Your task to perform on an android device: toggle javascript in the chrome app Image 0: 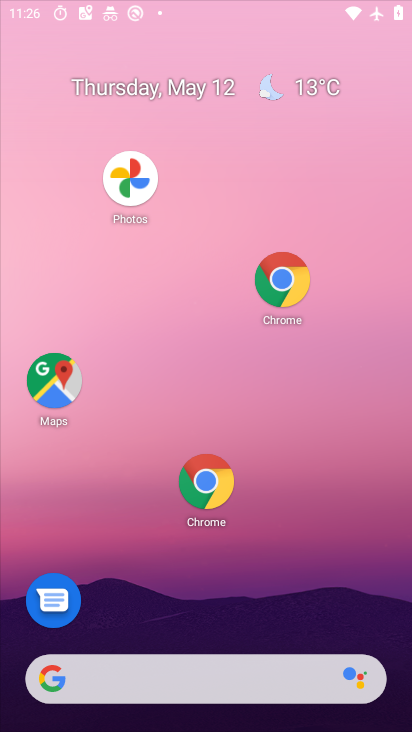
Step 0: drag from (283, 644) to (136, 258)
Your task to perform on an android device: toggle javascript in the chrome app Image 1: 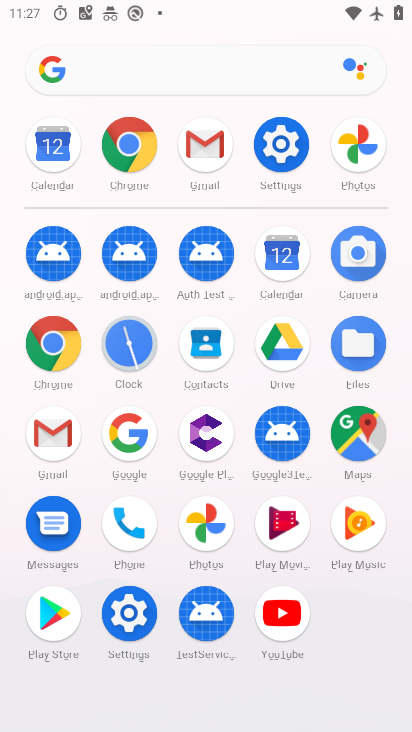
Step 1: click (119, 146)
Your task to perform on an android device: toggle javascript in the chrome app Image 2: 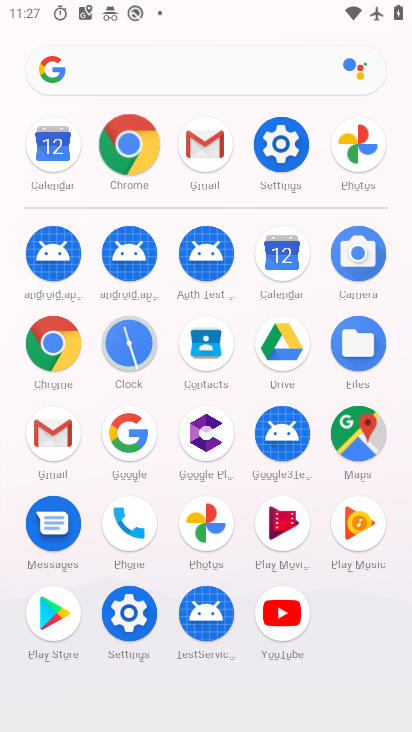
Step 2: click (119, 146)
Your task to perform on an android device: toggle javascript in the chrome app Image 3: 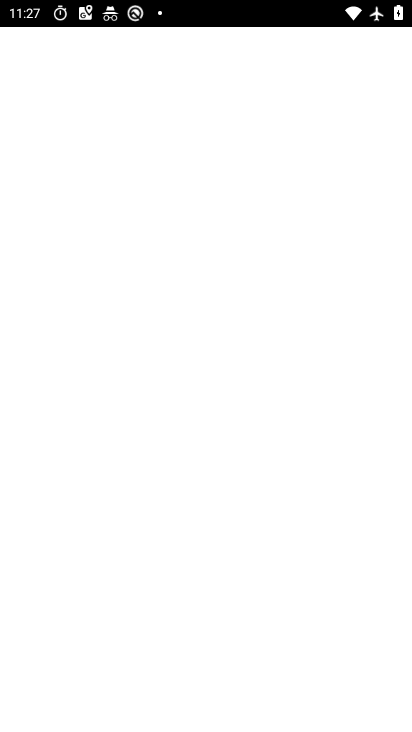
Step 3: click (120, 146)
Your task to perform on an android device: toggle javascript in the chrome app Image 4: 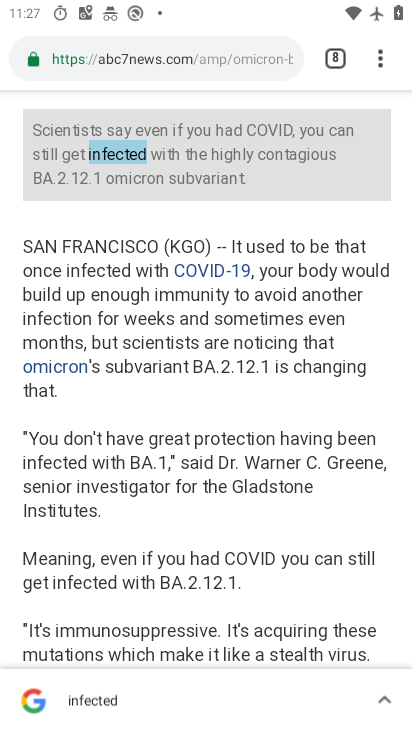
Step 4: click (117, 154)
Your task to perform on an android device: toggle javascript in the chrome app Image 5: 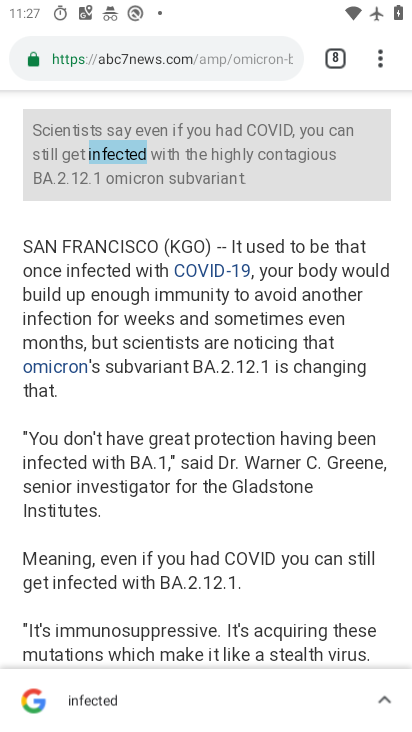
Step 5: click (118, 159)
Your task to perform on an android device: toggle javascript in the chrome app Image 6: 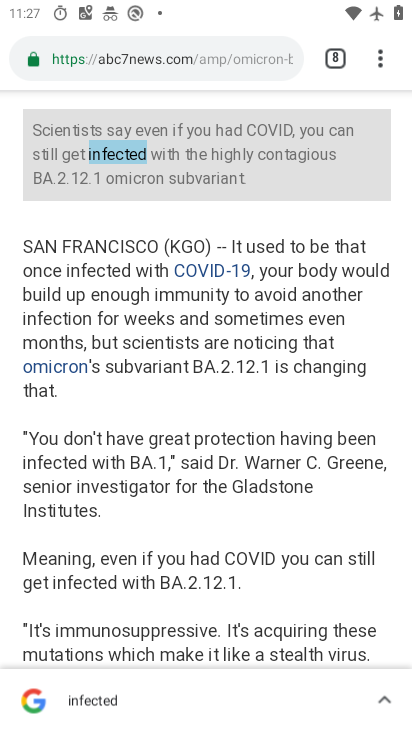
Step 6: click (118, 159)
Your task to perform on an android device: toggle javascript in the chrome app Image 7: 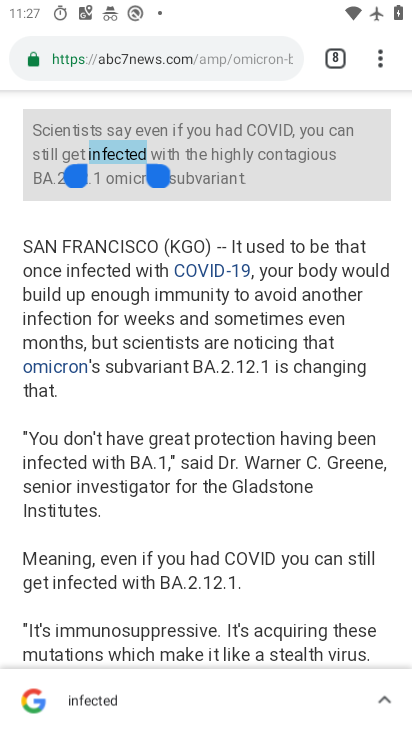
Step 7: click (118, 159)
Your task to perform on an android device: toggle javascript in the chrome app Image 8: 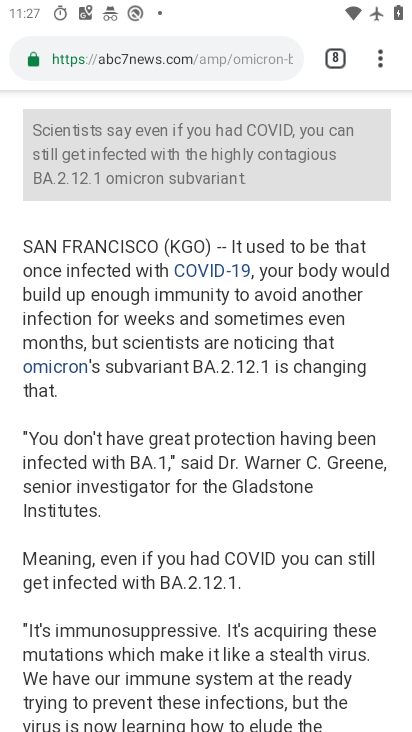
Step 8: click (118, 159)
Your task to perform on an android device: toggle javascript in the chrome app Image 9: 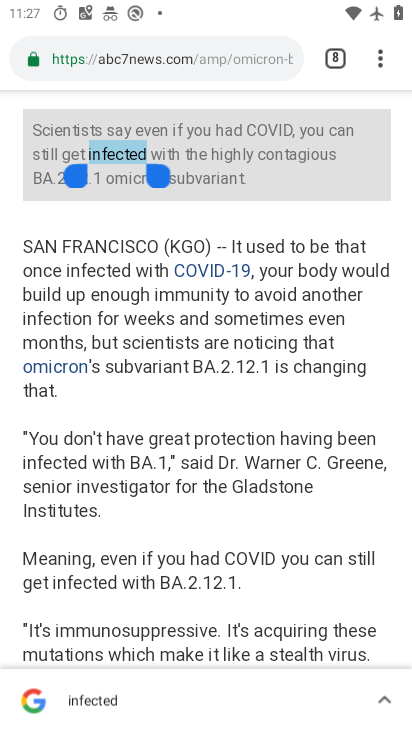
Step 9: press back button
Your task to perform on an android device: toggle javascript in the chrome app Image 10: 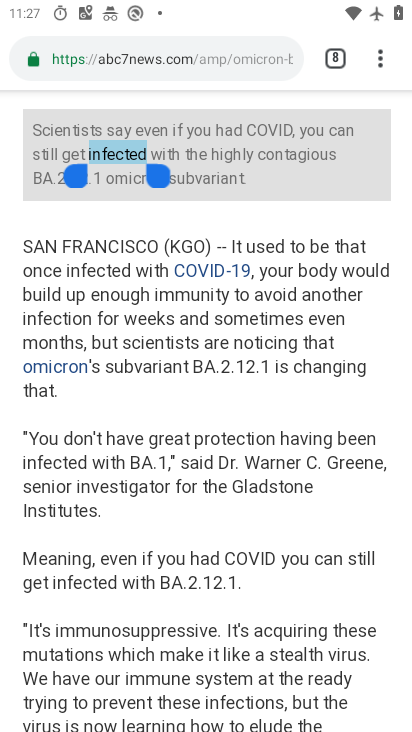
Step 10: press back button
Your task to perform on an android device: toggle javascript in the chrome app Image 11: 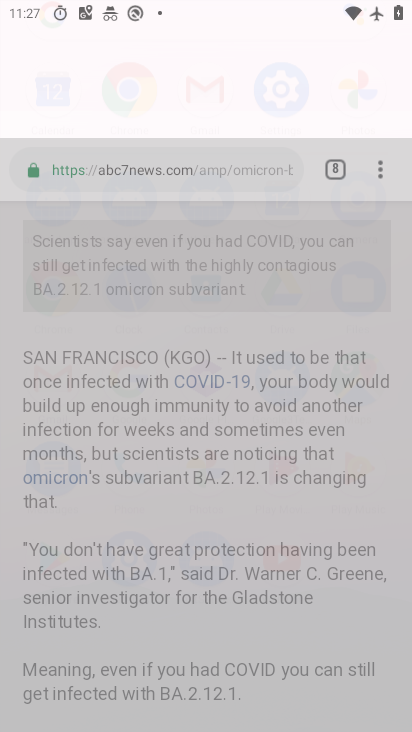
Step 11: press back button
Your task to perform on an android device: toggle javascript in the chrome app Image 12: 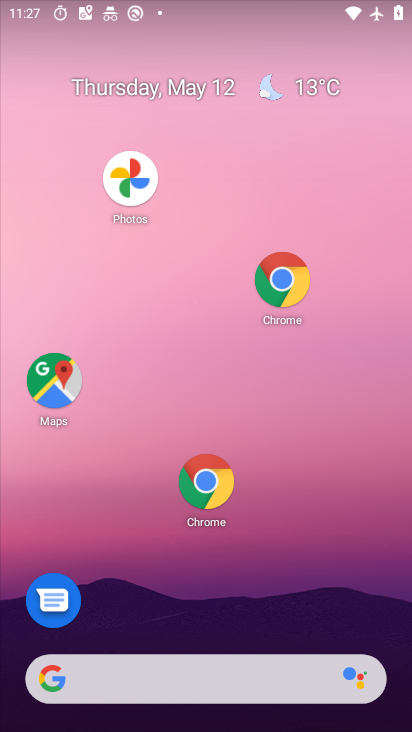
Step 12: drag from (306, 510) to (181, 191)
Your task to perform on an android device: toggle javascript in the chrome app Image 13: 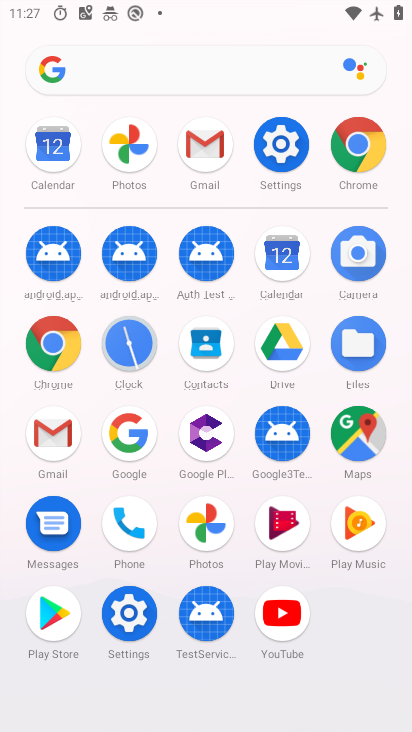
Step 13: click (370, 123)
Your task to perform on an android device: toggle javascript in the chrome app Image 14: 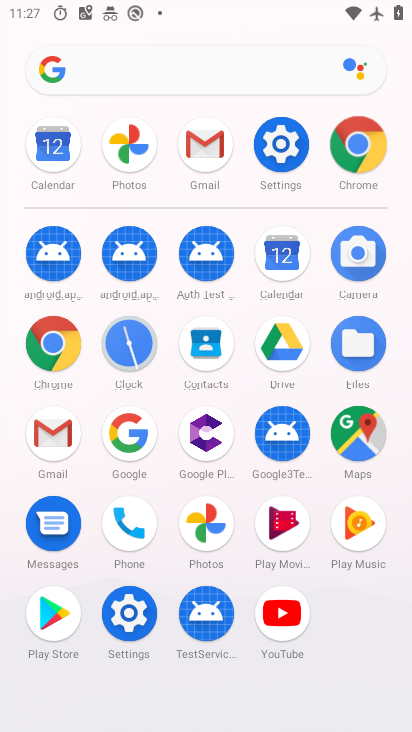
Step 14: click (366, 134)
Your task to perform on an android device: toggle javascript in the chrome app Image 15: 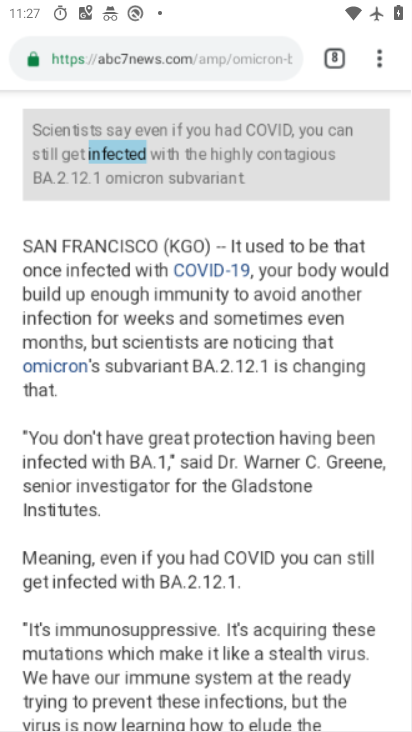
Step 15: click (360, 137)
Your task to perform on an android device: toggle javascript in the chrome app Image 16: 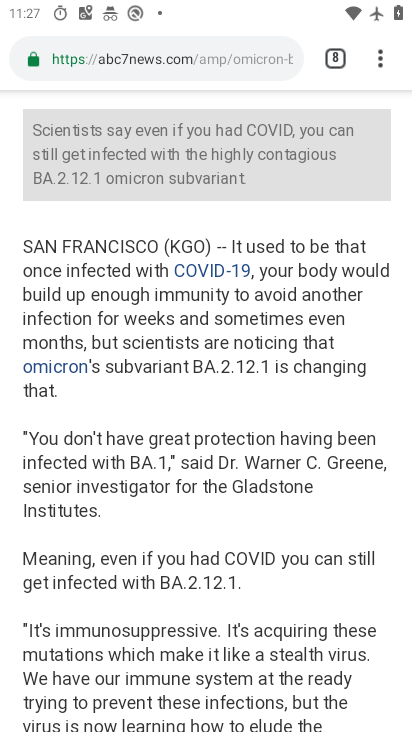
Step 16: drag from (171, 269) to (196, 576)
Your task to perform on an android device: toggle javascript in the chrome app Image 17: 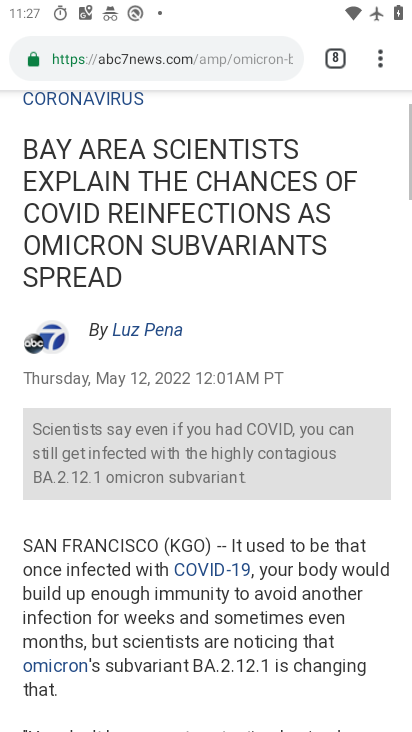
Step 17: drag from (75, 141) to (113, 415)
Your task to perform on an android device: toggle javascript in the chrome app Image 18: 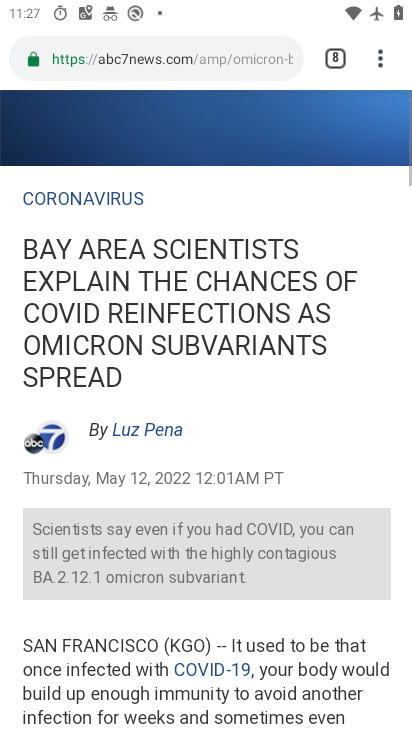
Step 18: drag from (66, 158) to (132, 484)
Your task to perform on an android device: toggle javascript in the chrome app Image 19: 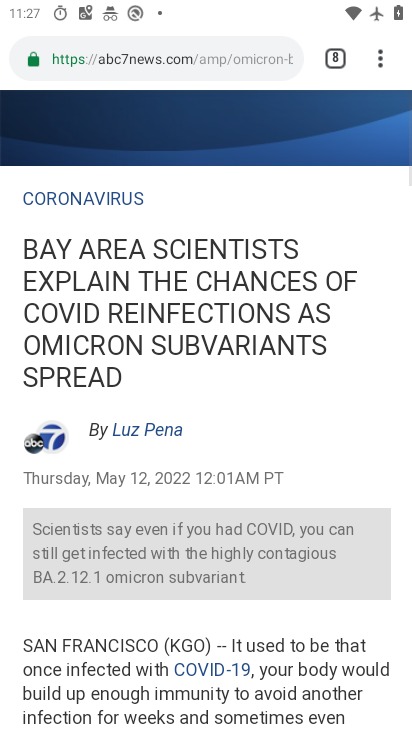
Step 19: drag from (106, 152) to (164, 654)
Your task to perform on an android device: toggle javascript in the chrome app Image 20: 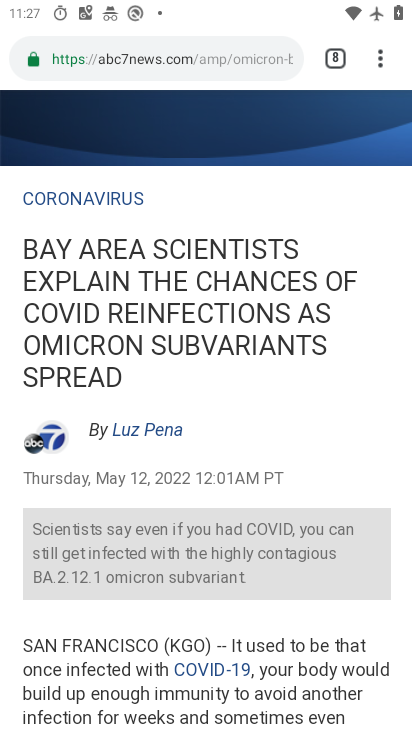
Step 20: drag from (119, 282) to (158, 541)
Your task to perform on an android device: toggle javascript in the chrome app Image 21: 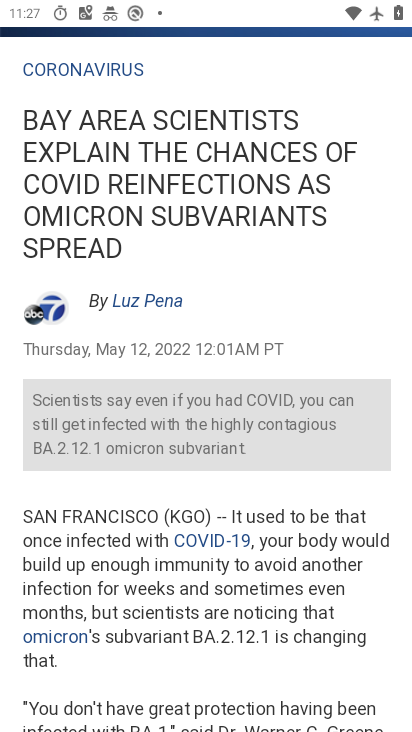
Step 21: drag from (186, 147) to (198, 612)
Your task to perform on an android device: toggle javascript in the chrome app Image 22: 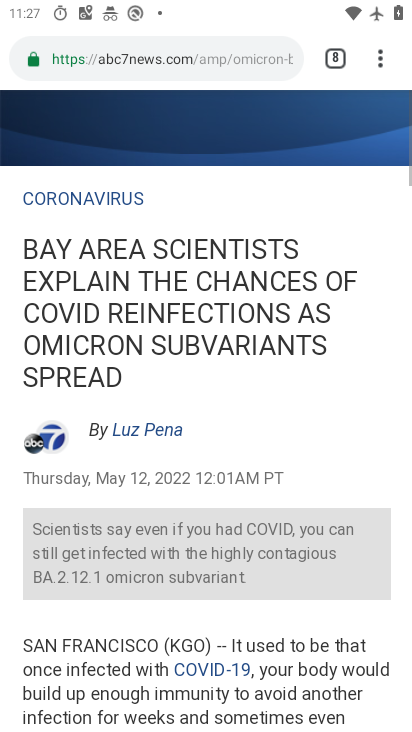
Step 22: drag from (197, 161) to (221, 637)
Your task to perform on an android device: toggle javascript in the chrome app Image 23: 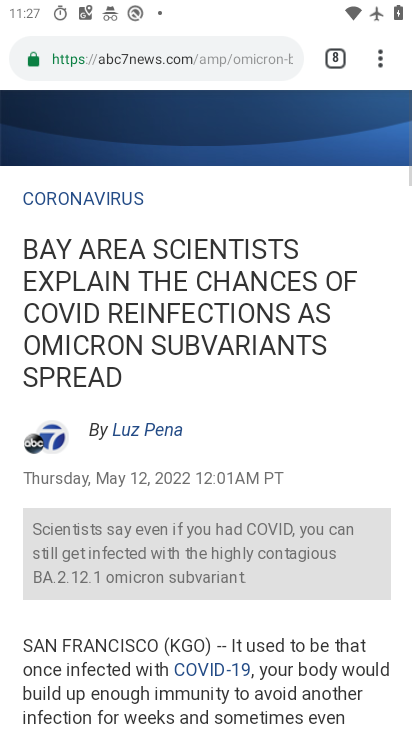
Step 23: drag from (174, 215) to (218, 583)
Your task to perform on an android device: toggle javascript in the chrome app Image 24: 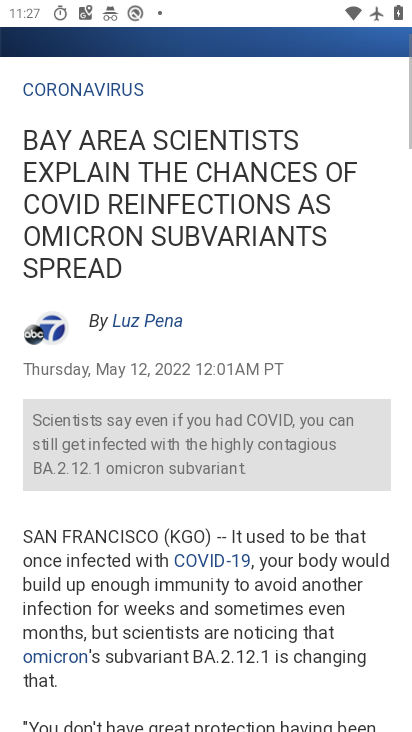
Step 24: drag from (206, 88) to (216, 451)
Your task to perform on an android device: toggle javascript in the chrome app Image 25: 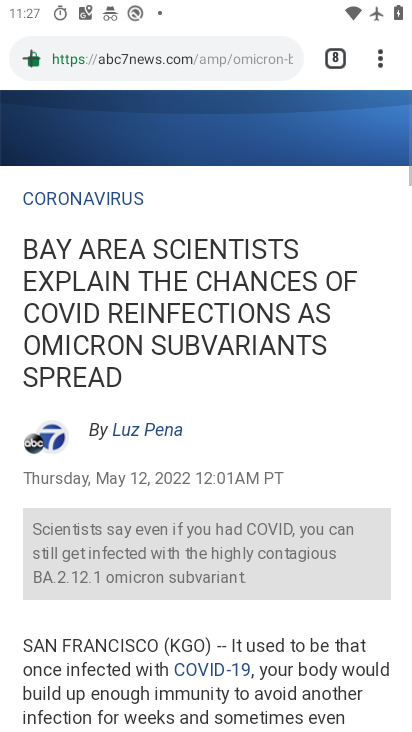
Step 25: drag from (190, 352) to (182, 526)
Your task to perform on an android device: toggle javascript in the chrome app Image 26: 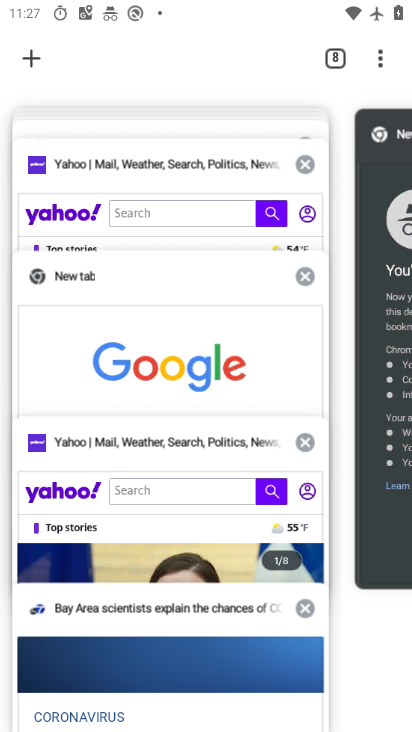
Step 26: drag from (105, 251) to (156, 502)
Your task to perform on an android device: toggle javascript in the chrome app Image 27: 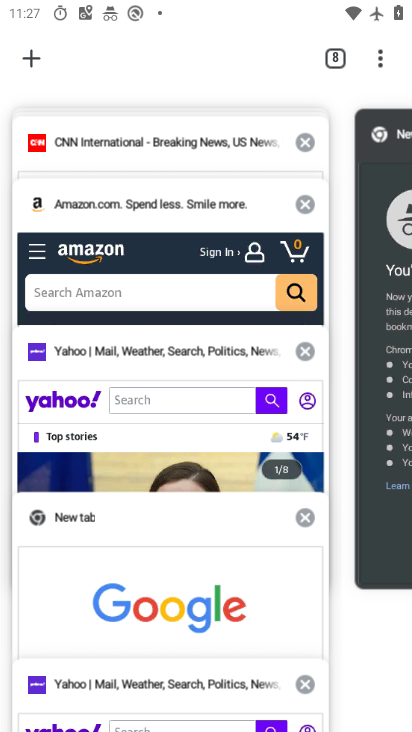
Step 27: drag from (379, 54) to (154, 223)
Your task to perform on an android device: toggle javascript in the chrome app Image 28: 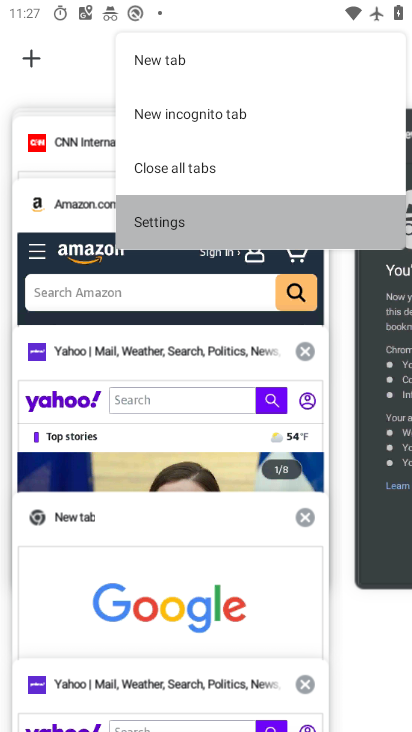
Step 28: click (155, 221)
Your task to perform on an android device: toggle javascript in the chrome app Image 29: 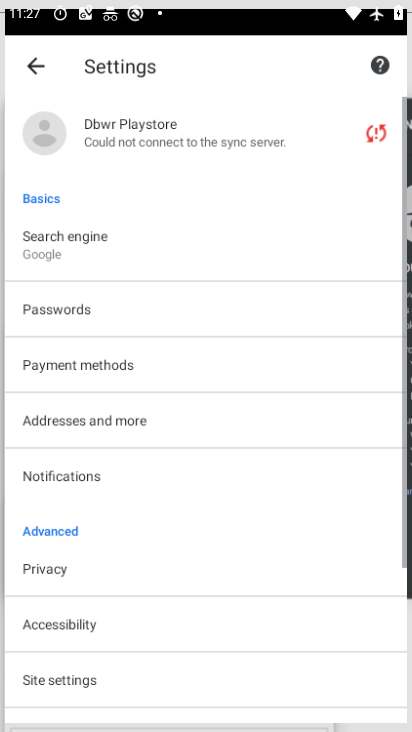
Step 29: click (155, 221)
Your task to perform on an android device: toggle javascript in the chrome app Image 30: 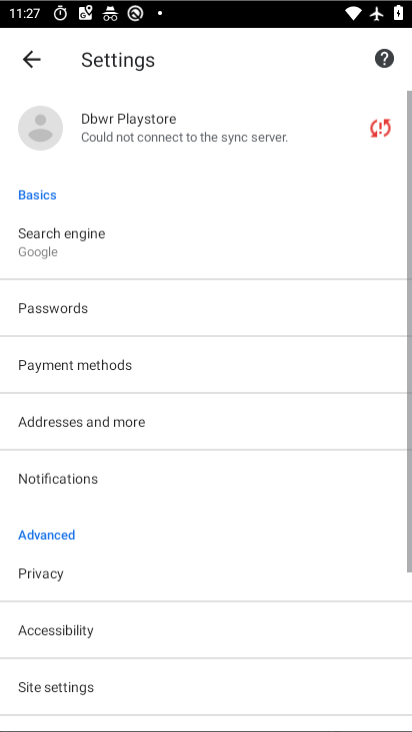
Step 30: click (155, 221)
Your task to perform on an android device: toggle javascript in the chrome app Image 31: 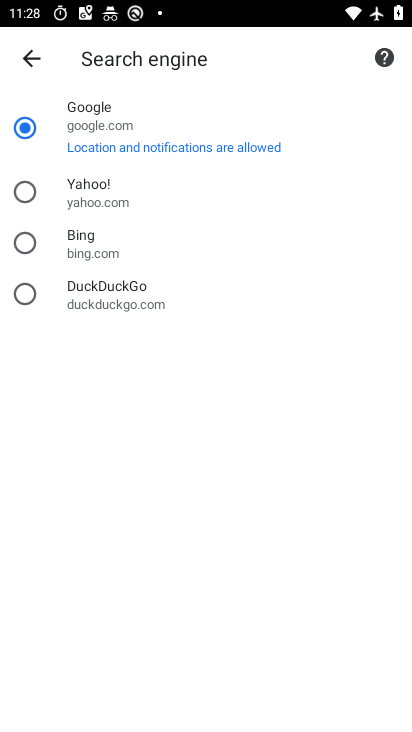
Step 31: click (26, 55)
Your task to perform on an android device: toggle javascript in the chrome app Image 32: 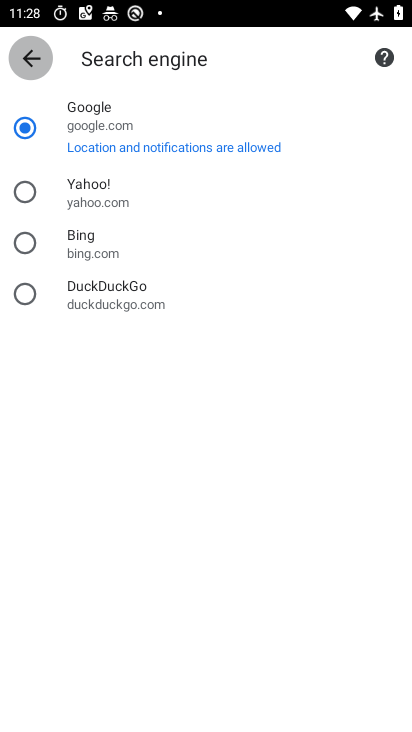
Step 32: click (26, 55)
Your task to perform on an android device: toggle javascript in the chrome app Image 33: 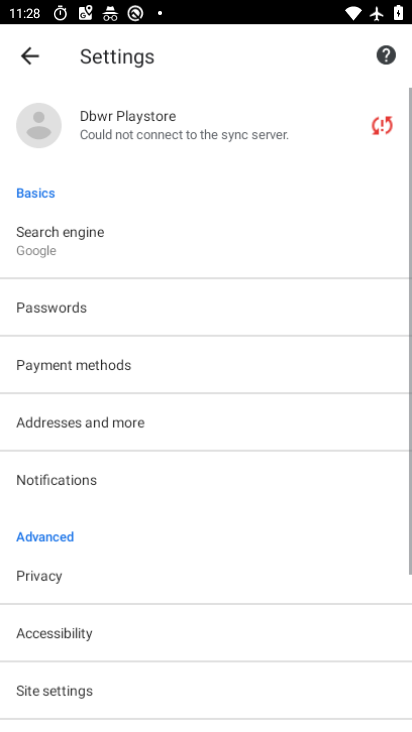
Step 33: click (26, 55)
Your task to perform on an android device: toggle javascript in the chrome app Image 34: 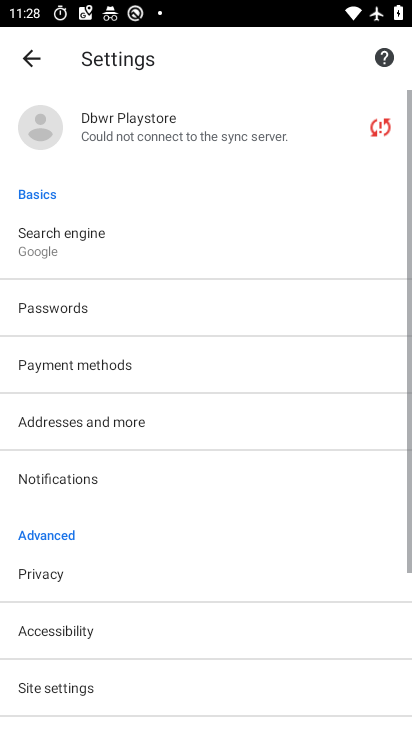
Step 34: click (27, 54)
Your task to perform on an android device: toggle javascript in the chrome app Image 35: 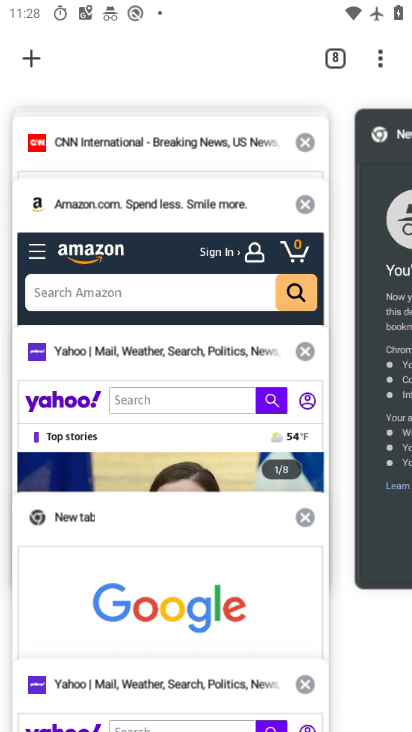
Step 35: drag from (68, 517) to (61, 275)
Your task to perform on an android device: toggle javascript in the chrome app Image 36: 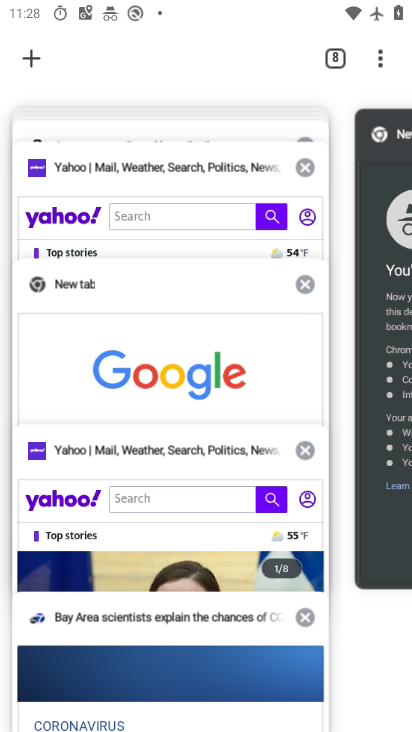
Step 36: press back button
Your task to perform on an android device: toggle javascript in the chrome app Image 37: 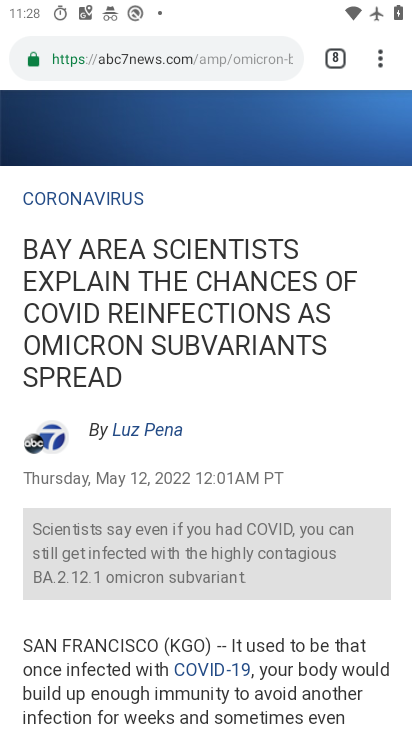
Step 37: press home button
Your task to perform on an android device: toggle javascript in the chrome app Image 38: 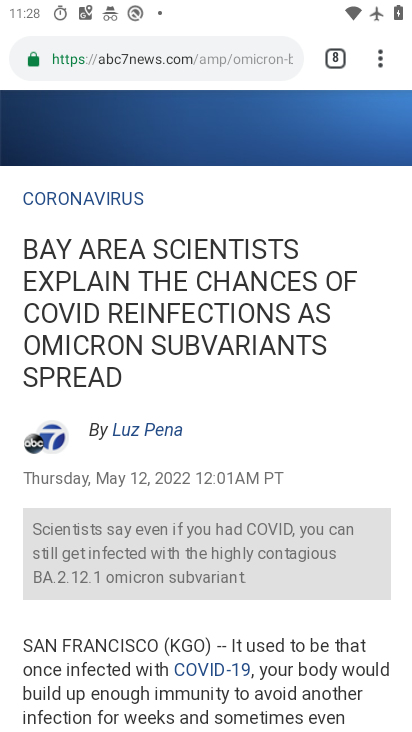
Step 38: press home button
Your task to perform on an android device: toggle javascript in the chrome app Image 39: 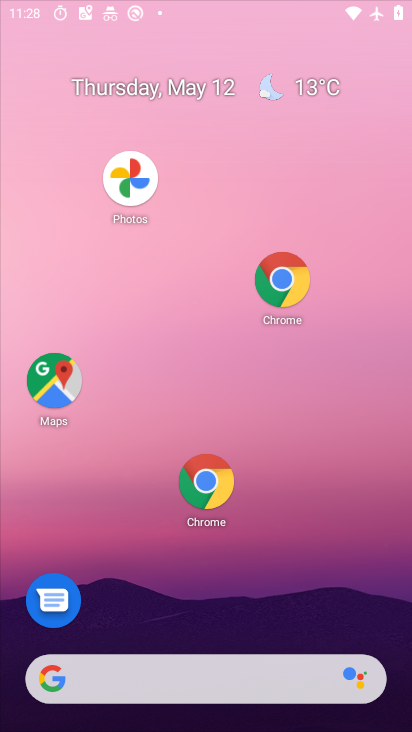
Step 39: press home button
Your task to perform on an android device: toggle javascript in the chrome app Image 40: 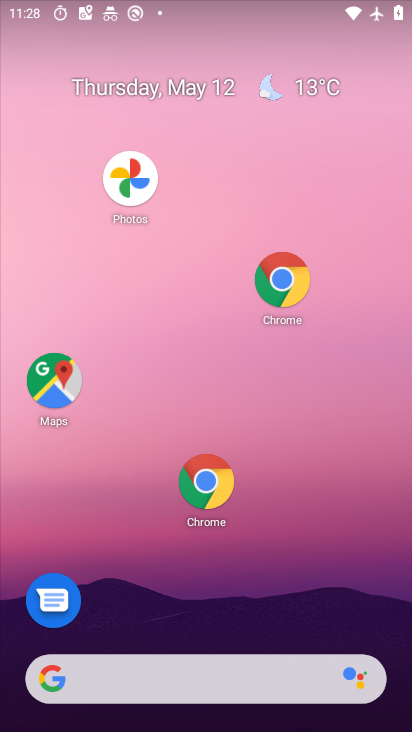
Step 40: drag from (246, 620) to (211, 91)
Your task to perform on an android device: toggle javascript in the chrome app Image 41: 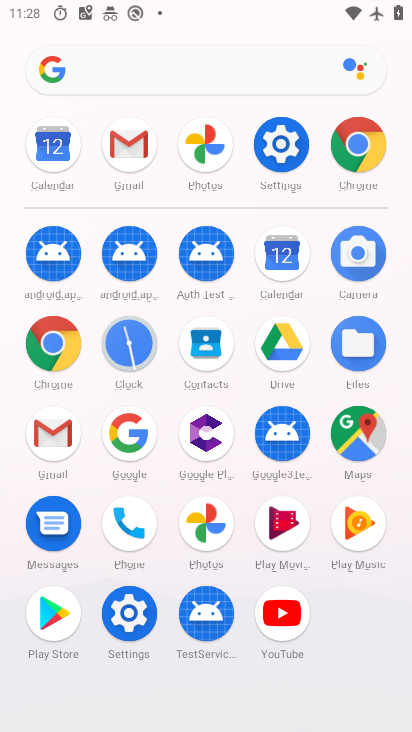
Step 41: click (355, 143)
Your task to perform on an android device: toggle javascript in the chrome app Image 42: 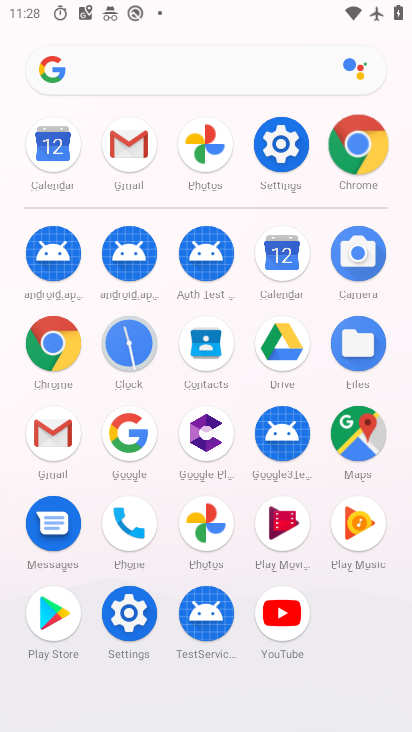
Step 42: click (355, 143)
Your task to perform on an android device: toggle javascript in the chrome app Image 43: 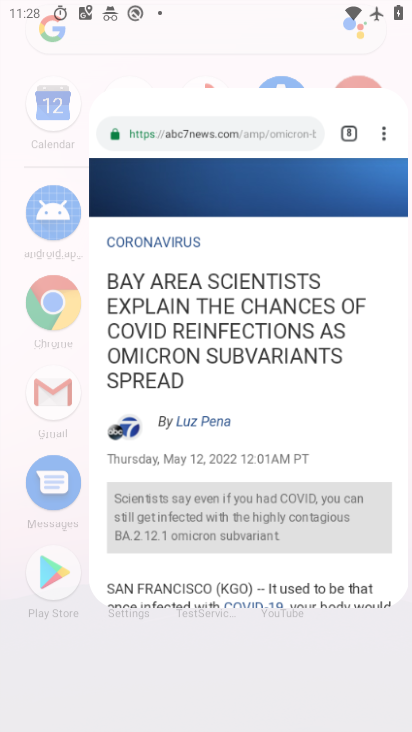
Step 43: click (355, 143)
Your task to perform on an android device: toggle javascript in the chrome app Image 44: 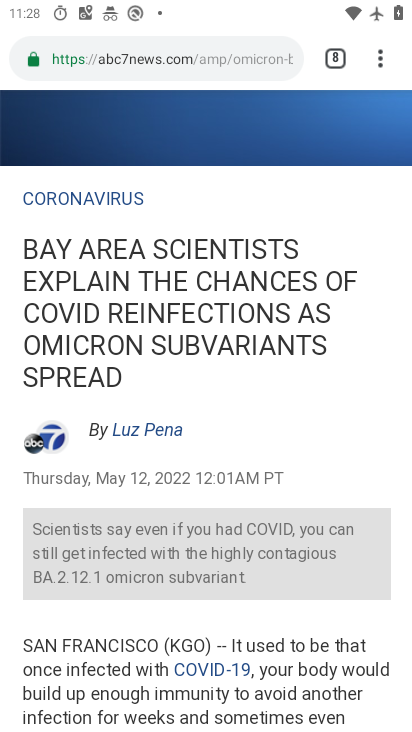
Step 44: drag from (377, 65) to (166, 627)
Your task to perform on an android device: toggle javascript in the chrome app Image 45: 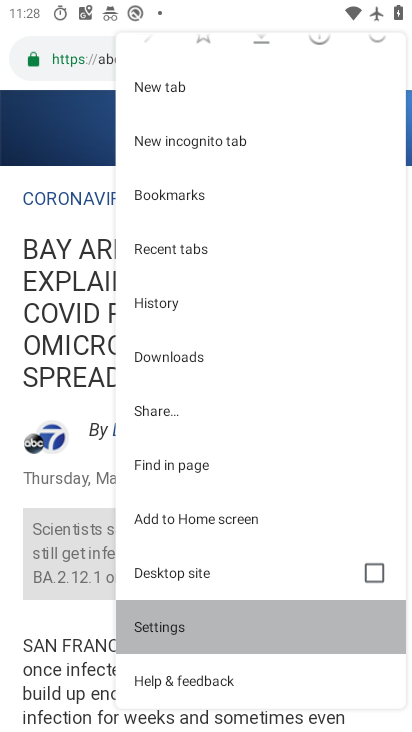
Step 45: click (166, 627)
Your task to perform on an android device: toggle javascript in the chrome app Image 46: 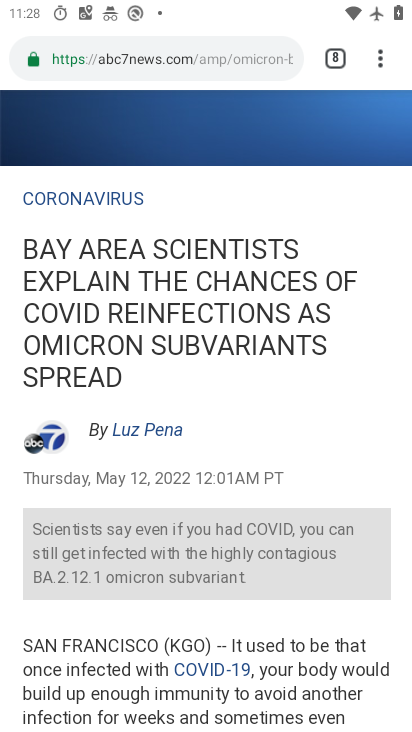
Step 46: click (166, 627)
Your task to perform on an android device: toggle javascript in the chrome app Image 47: 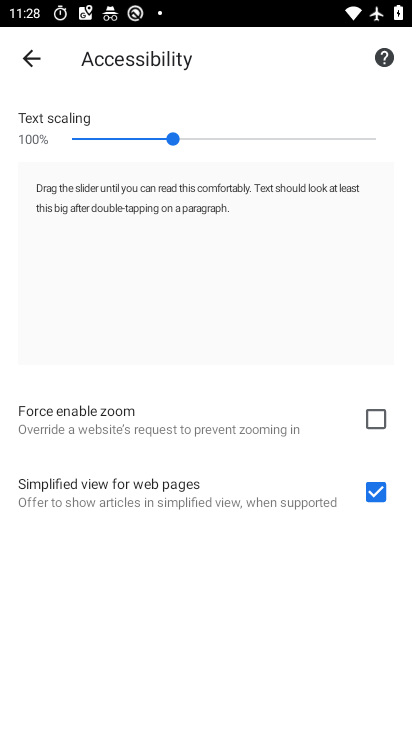
Step 47: click (17, 57)
Your task to perform on an android device: toggle javascript in the chrome app Image 48: 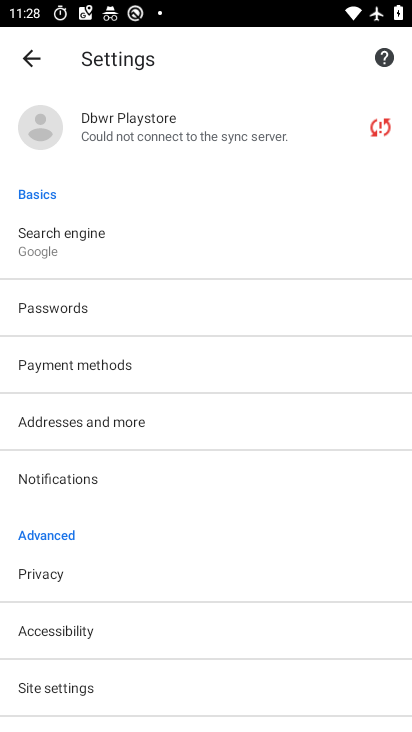
Step 48: drag from (155, 556) to (133, 214)
Your task to perform on an android device: toggle javascript in the chrome app Image 49: 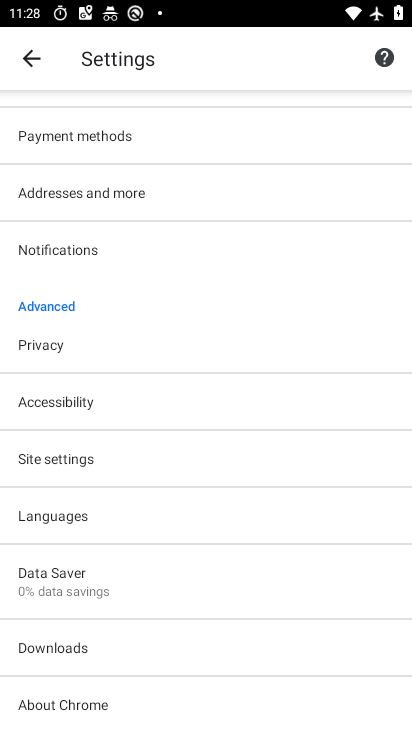
Step 49: drag from (104, 602) to (41, 181)
Your task to perform on an android device: toggle javascript in the chrome app Image 50: 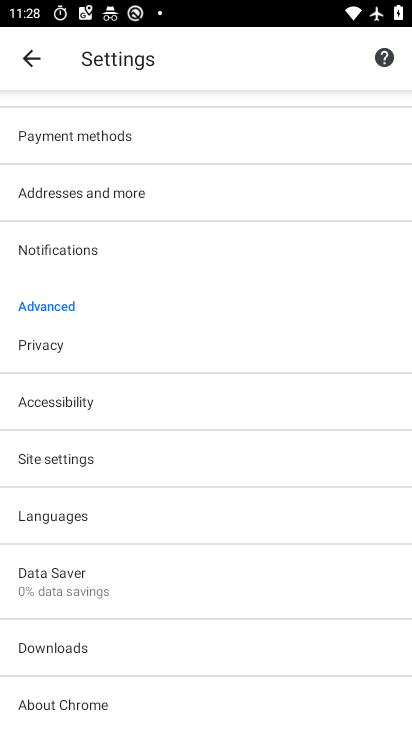
Step 50: click (39, 458)
Your task to perform on an android device: toggle javascript in the chrome app Image 51: 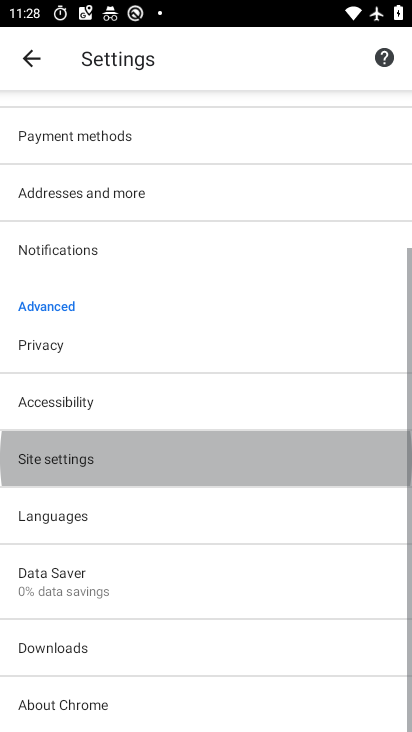
Step 51: click (39, 458)
Your task to perform on an android device: toggle javascript in the chrome app Image 52: 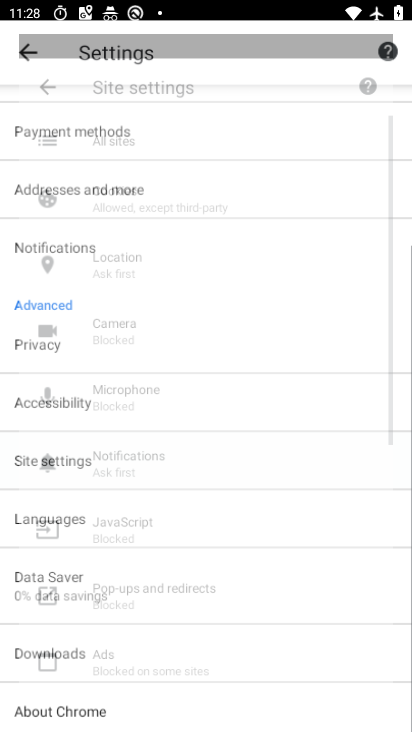
Step 52: click (39, 458)
Your task to perform on an android device: toggle javascript in the chrome app Image 53: 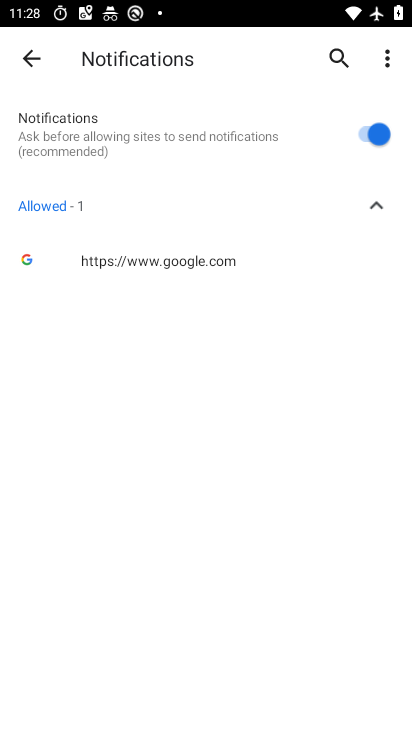
Step 53: click (27, 63)
Your task to perform on an android device: toggle javascript in the chrome app Image 54: 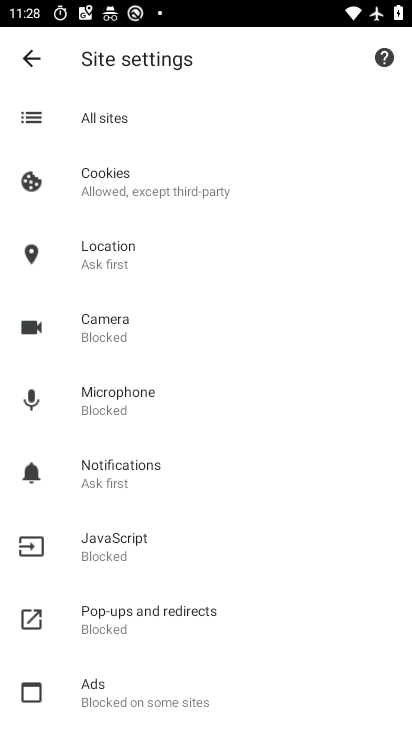
Step 54: click (126, 469)
Your task to perform on an android device: toggle javascript in the chrome app Image 55: 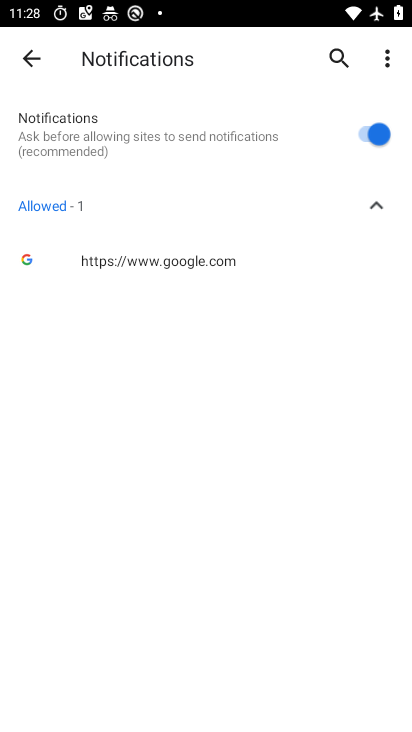
Step 55: click (28, 61)
Your task to perform on an android device: toggle javascript in the chrome app Image 56: 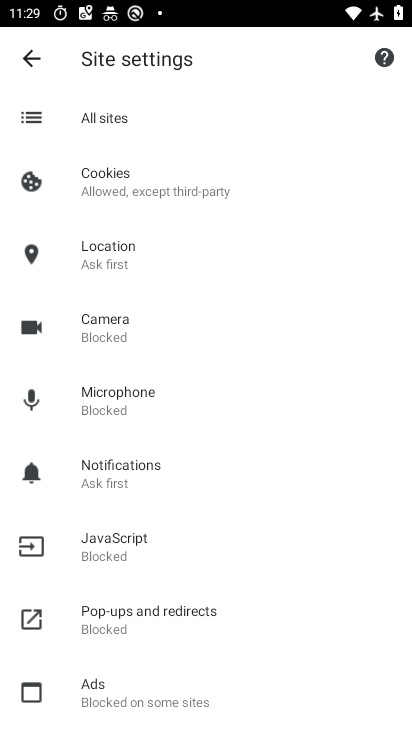
Step 56: click (104, 549)
Your task to perform on an android device: toggle javascript in the chrome app Image 57: 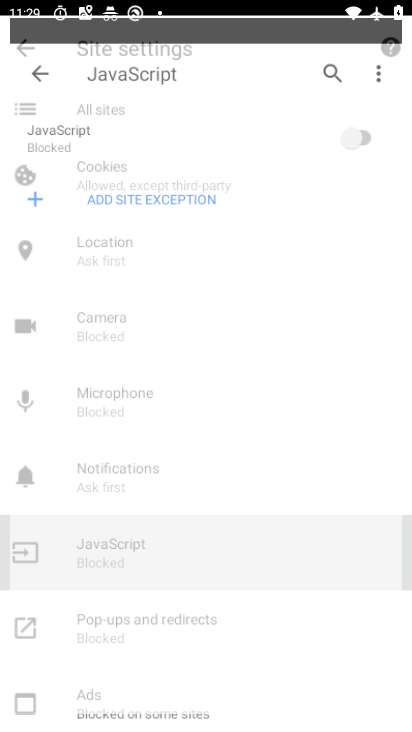
Step 57: click (99, 548)
Your task to perform on an android device: toggle javascript in the chrome app Image 58: 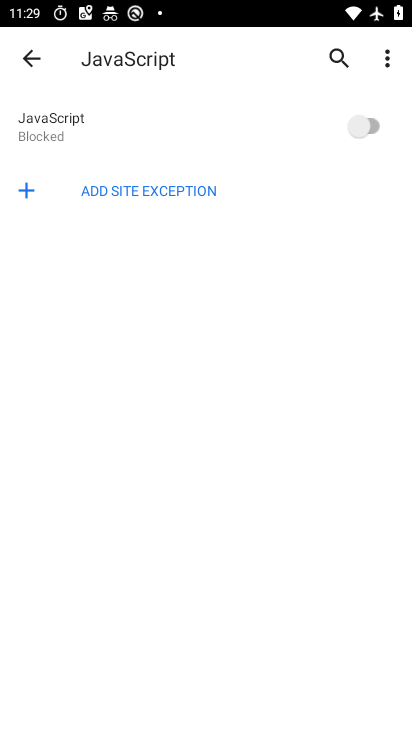
Step 58: click (351, 123)
Your task to perform on an android device: toggle javascript in the chrome app Image 59: 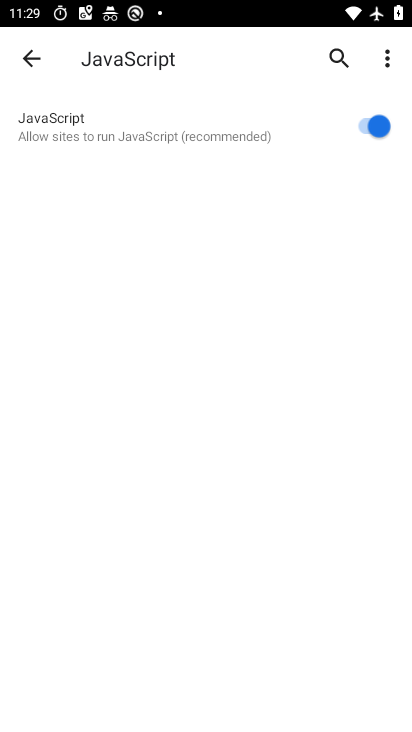
Step 59: task complete